Your task to perform on an android device: Clear the cart on ebay. Add usb-a to usb-b to the cart on ebay, then select checkout. Image 0: 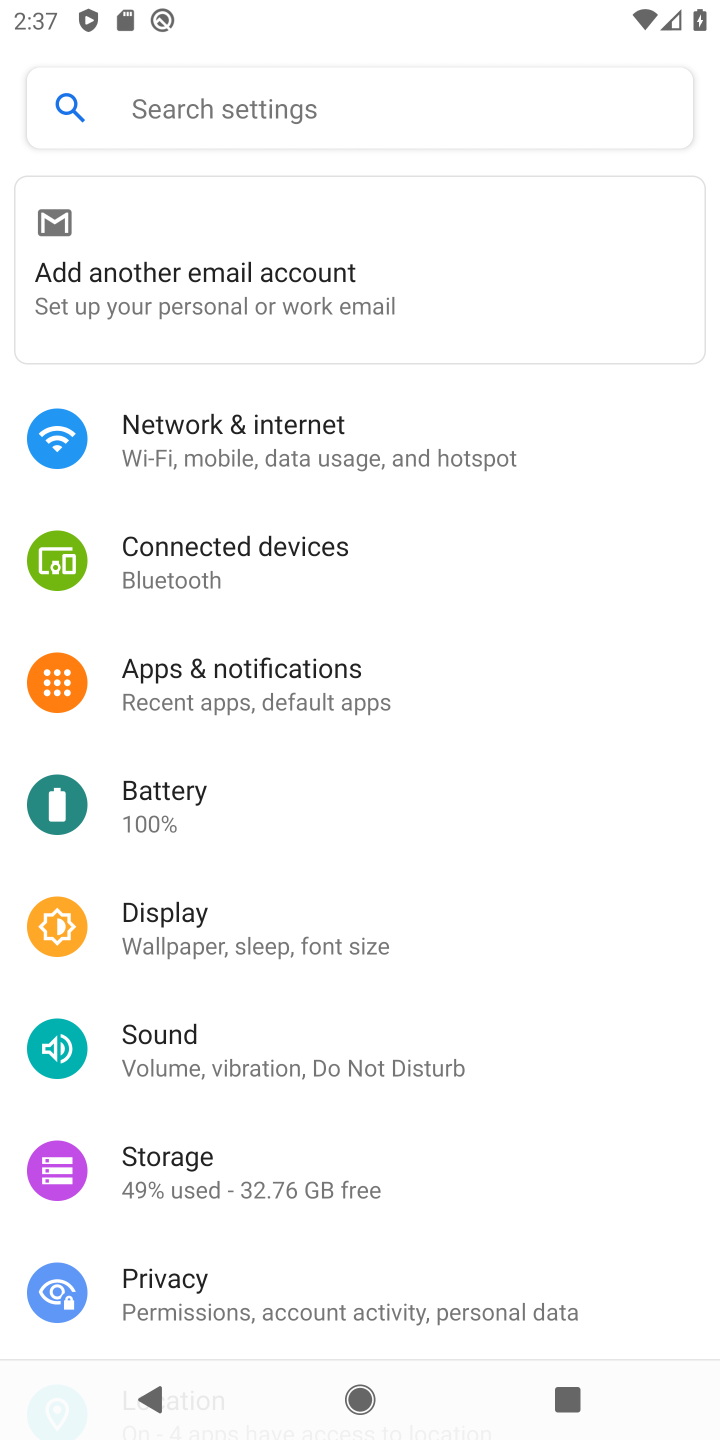
Step 0: press home button
Your task to perform on an android device: Clear the cart on ebay. Add usb-a to usb-b to the cart on ebay, then select checkout. Image 1: 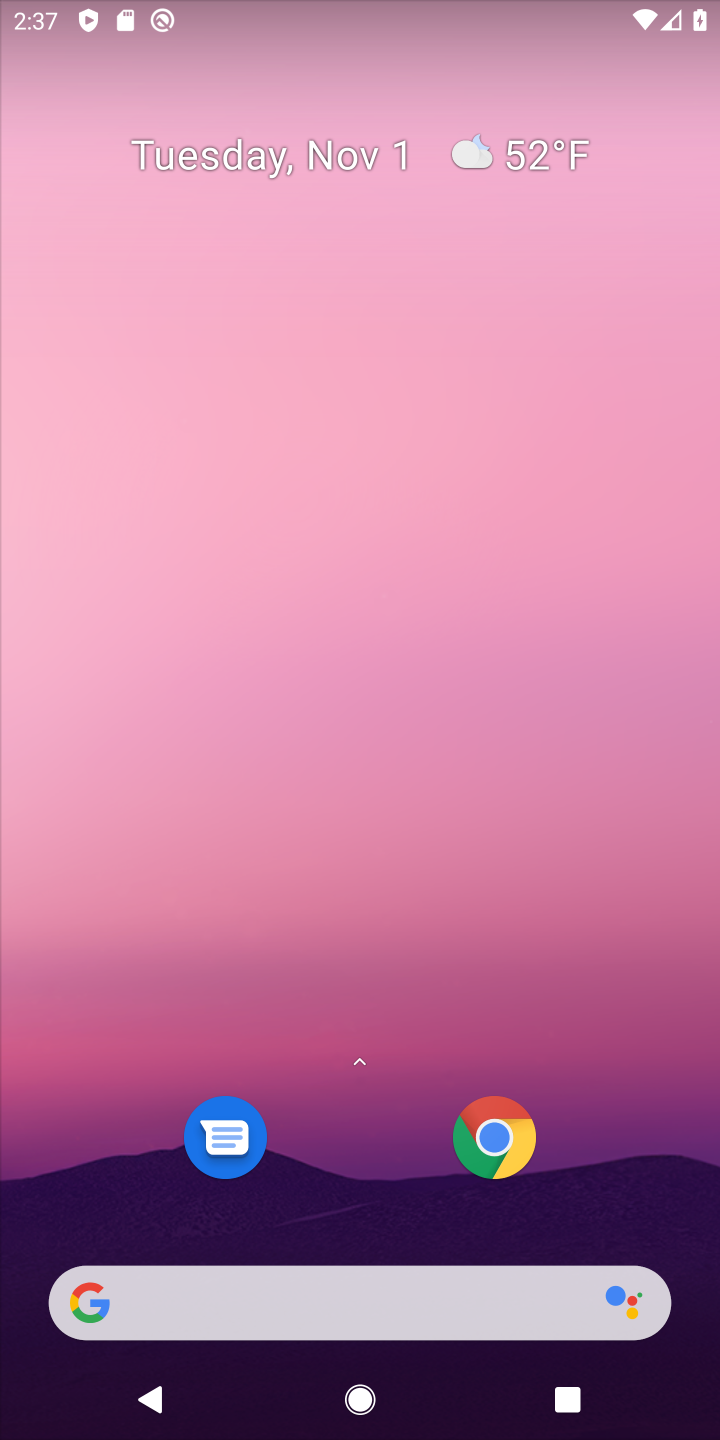
Step 1: click (324, 1279)
Your task to perform on an android device: Clear the cart on ebay. Add usb-a to usb-b to the cart on ebay, then select checkout. Image 2: 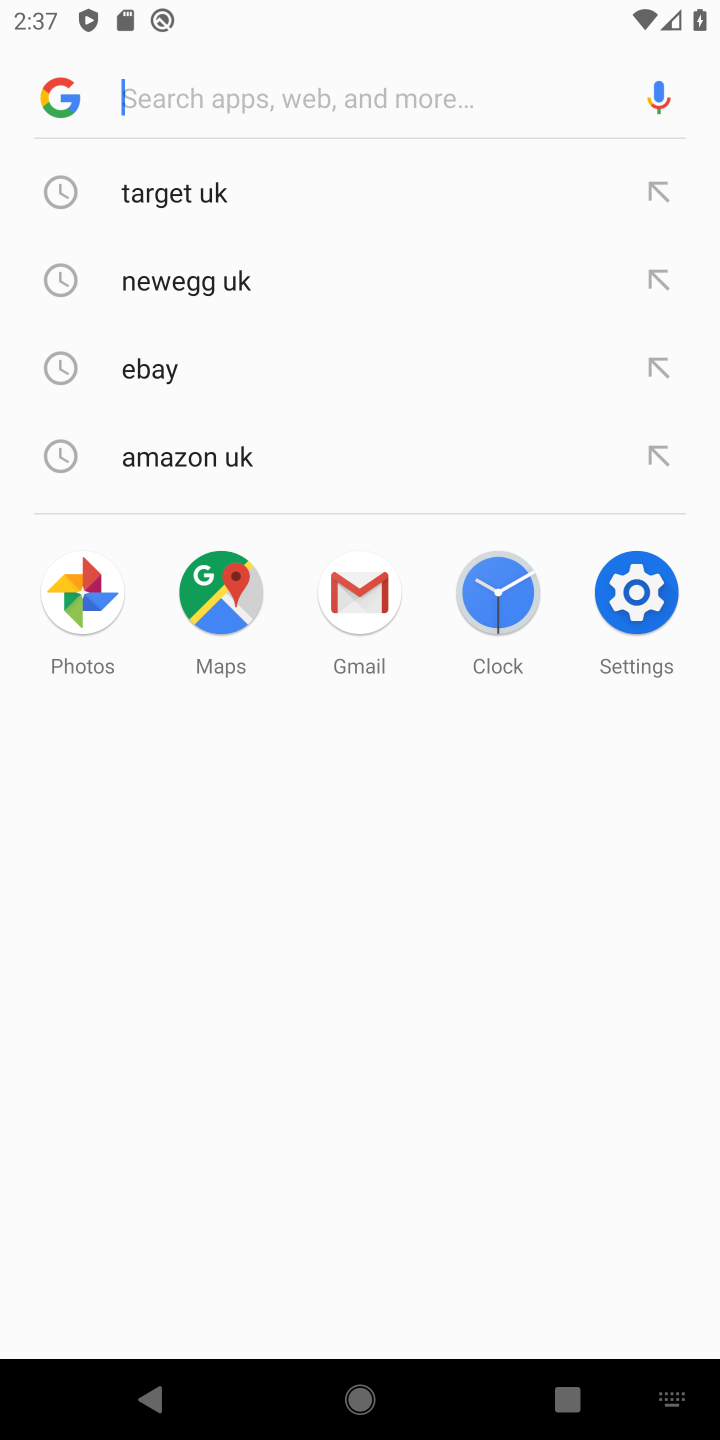
Step 2: type "ebay"
Your task to perform on an android device: Clear the cart on ebay. Add usb-a to usb-b to the cart on ebay, then select checkout. Image 3: 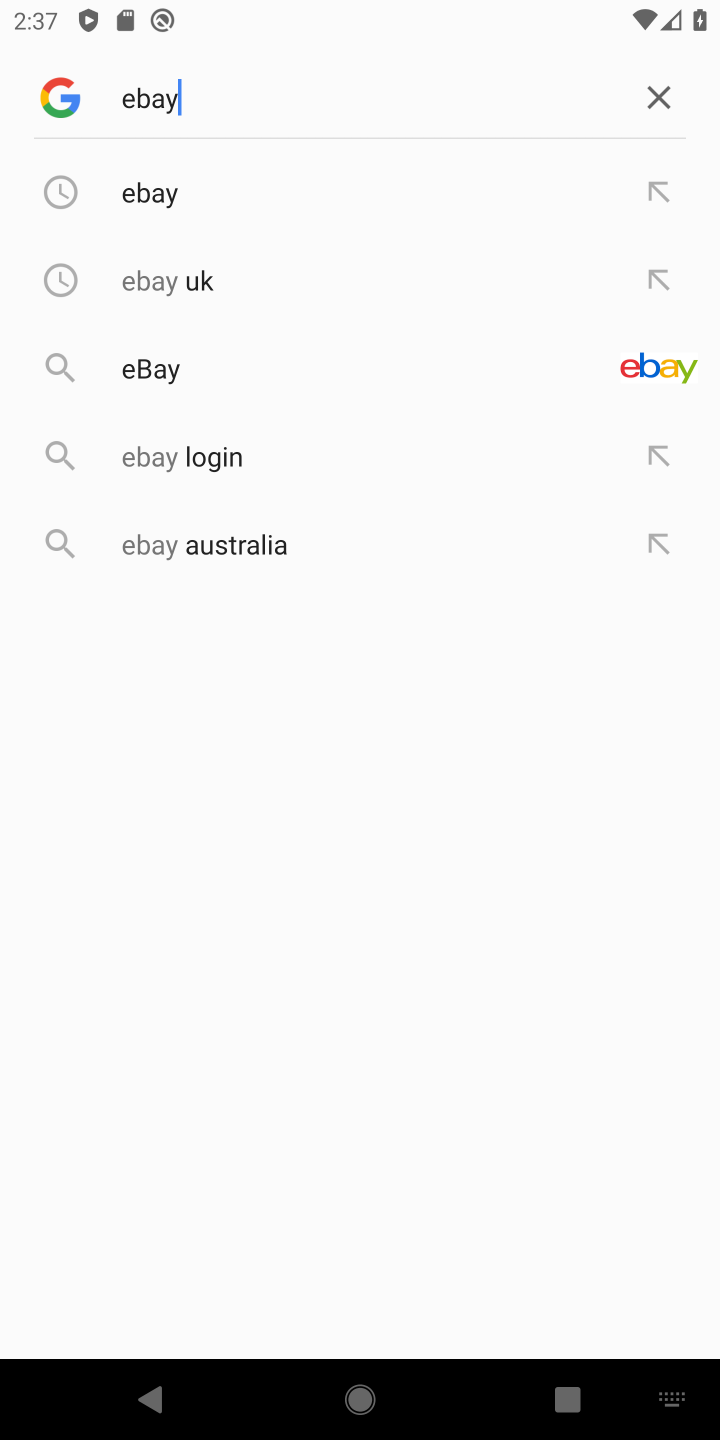
Step 3: click (216, 189)
Your task to perform on an android device: Clear the cart on ebay. Add usb-a to usb-b to the cart on ebay, then select checkout. Image 4: 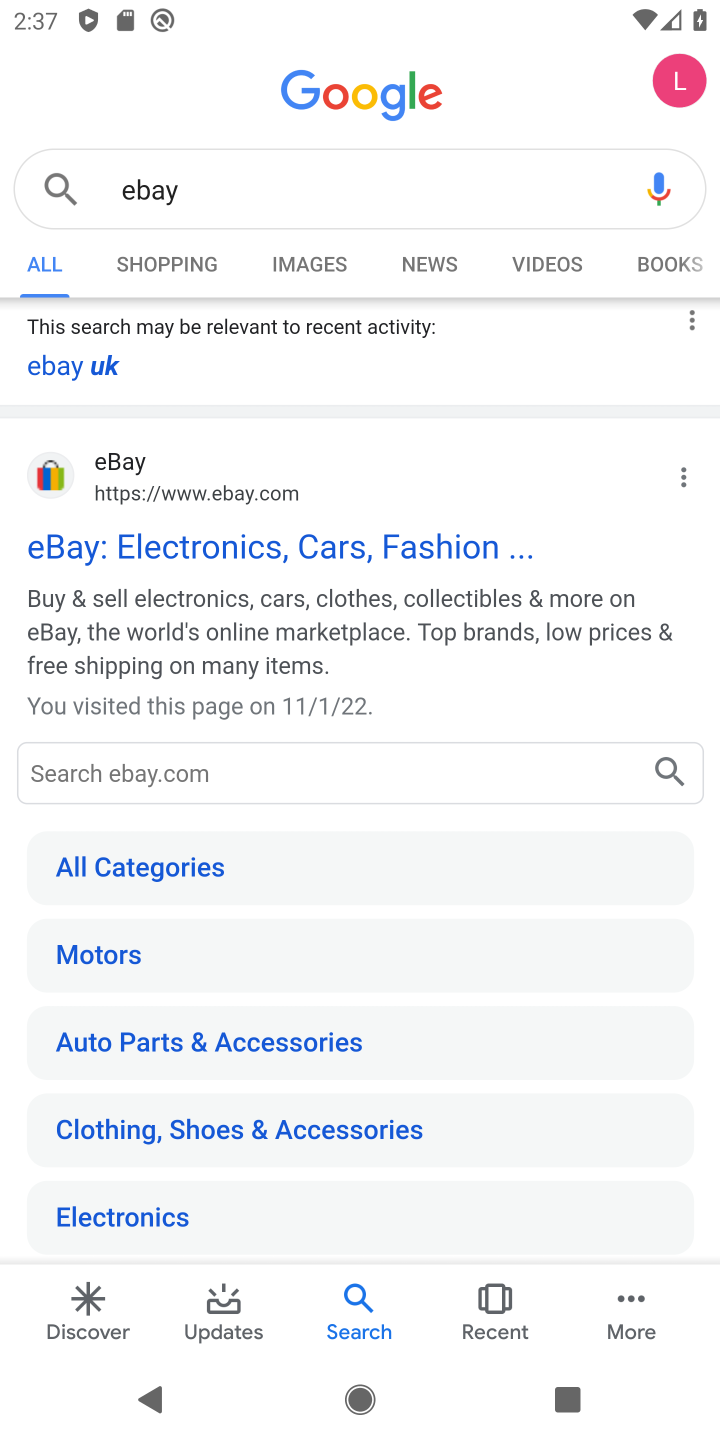
Step 4: click (310, 533)
Your task to perform on an android device: Clear the cart on ebay. Add usb-a to usb-b to the cart on ebay, then select checkout. Image 5: 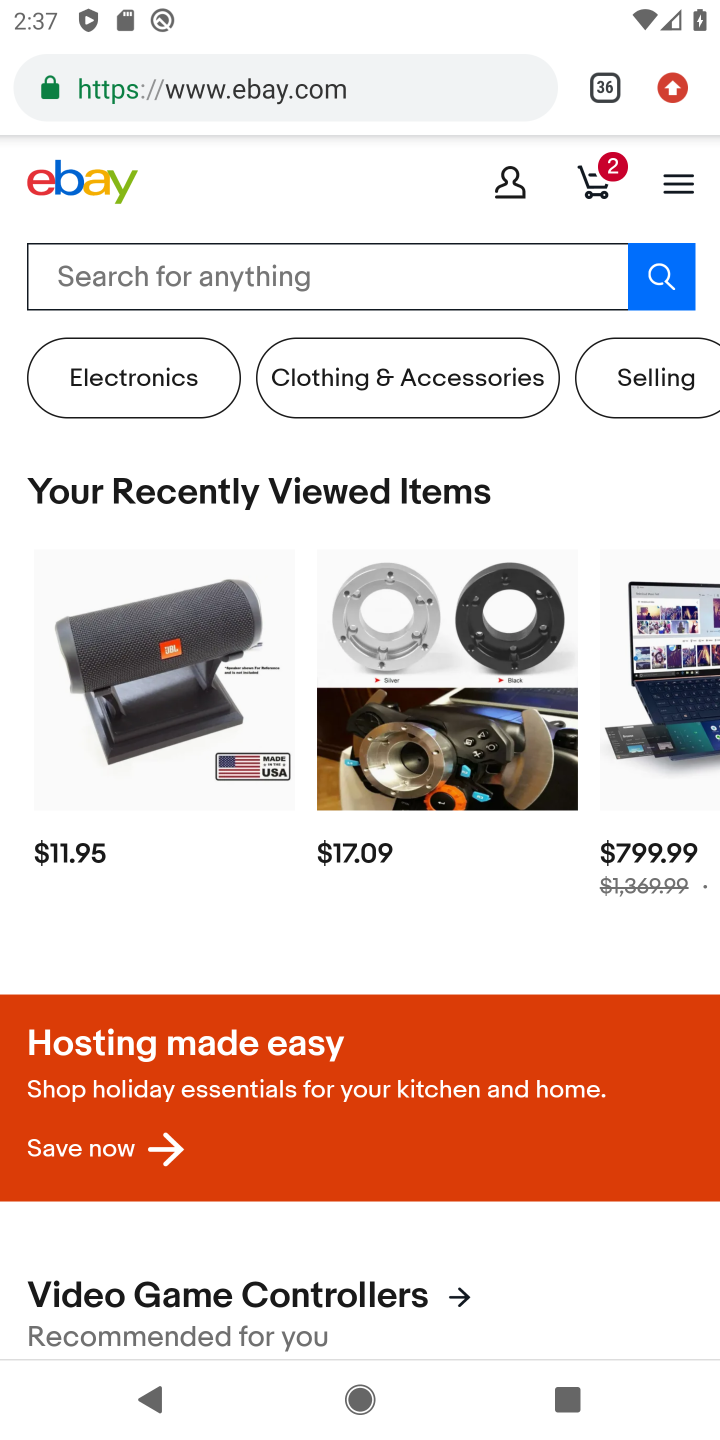
Step 5: click (373, 262)
Your task to perform on an android device: Clear the cart on ebay. Add usb-a to usb-b to the cart on ebay, then select checkout. Image 6: 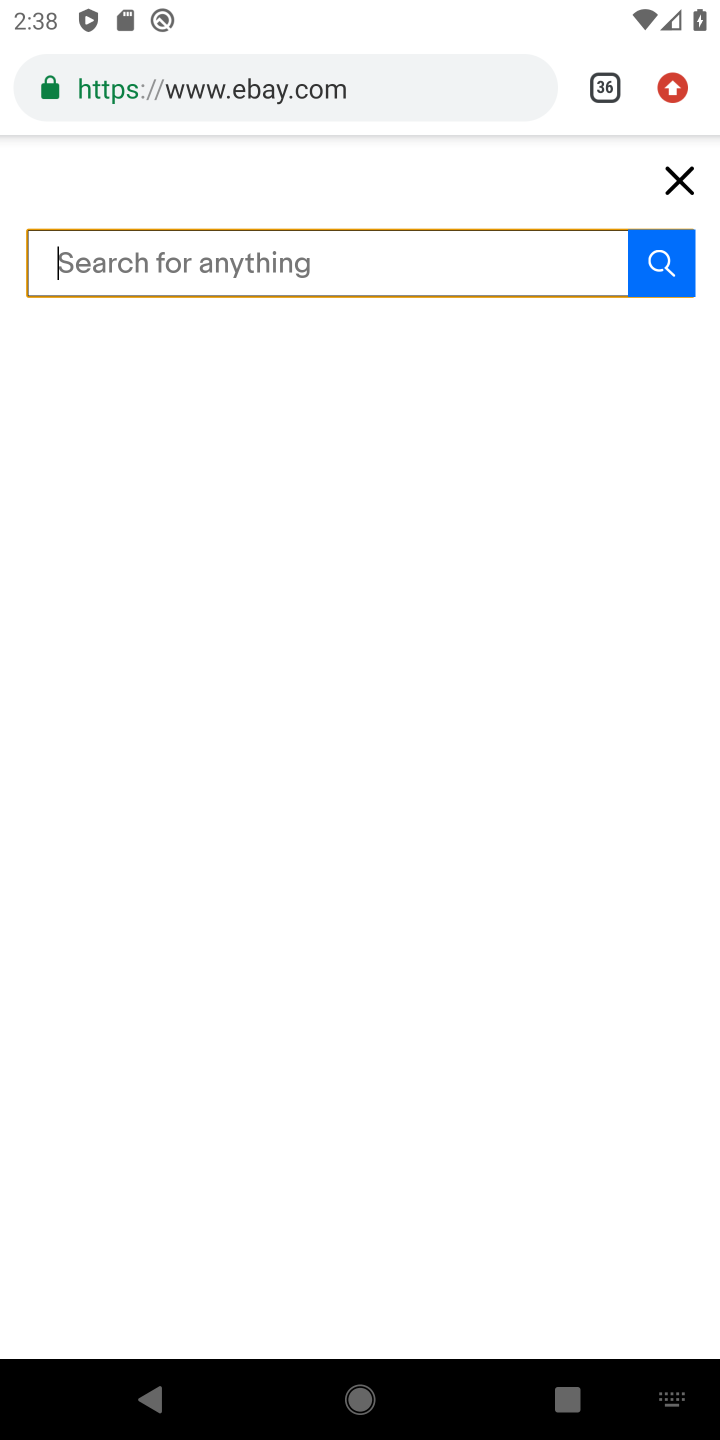
Step 6: click (287, 272)
Your task to perform on an android device: Clear the cart on ebay. Add usb-a to usb-b to the cart on ebay, then select checkout. Image 7: 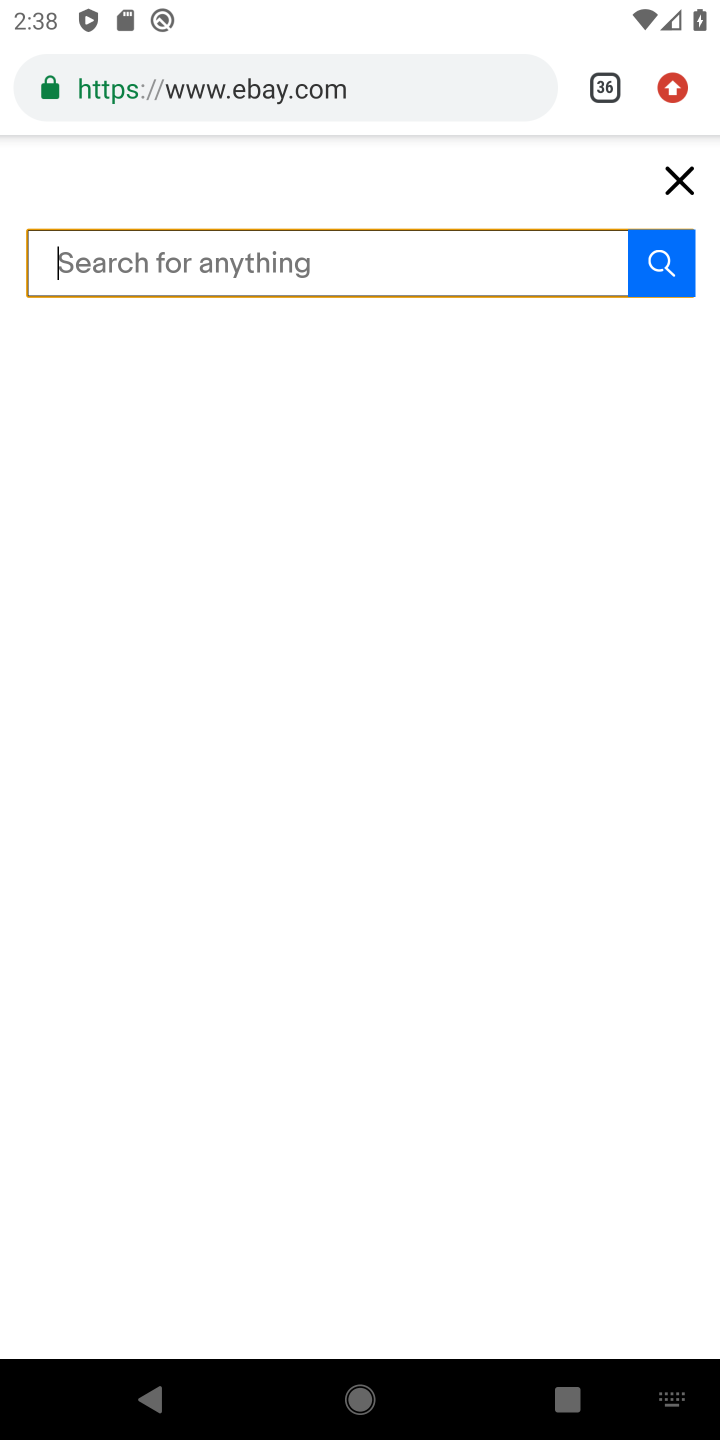
Step 7: type "usb-a to usb-c"
Your task to perform on an android device: Clear the cart on ebay. Add usb-a to usb-b to the cart on ebay, then select checkout. Image 8: 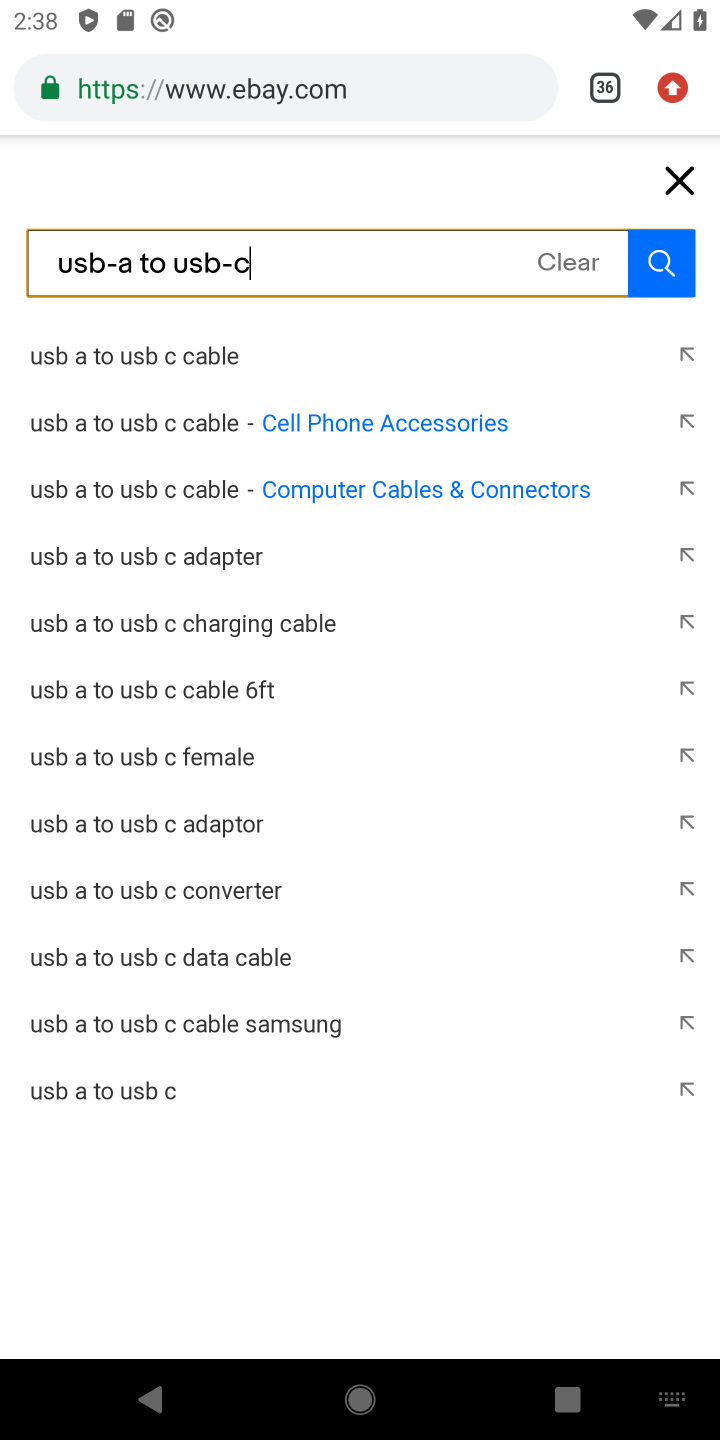
Step 8: click (322, 351)
Your task to perform on an android device: Clear the cart on ebay. Add usb-a to usb-b to the cart on ebay, then select checkout. Image 9: 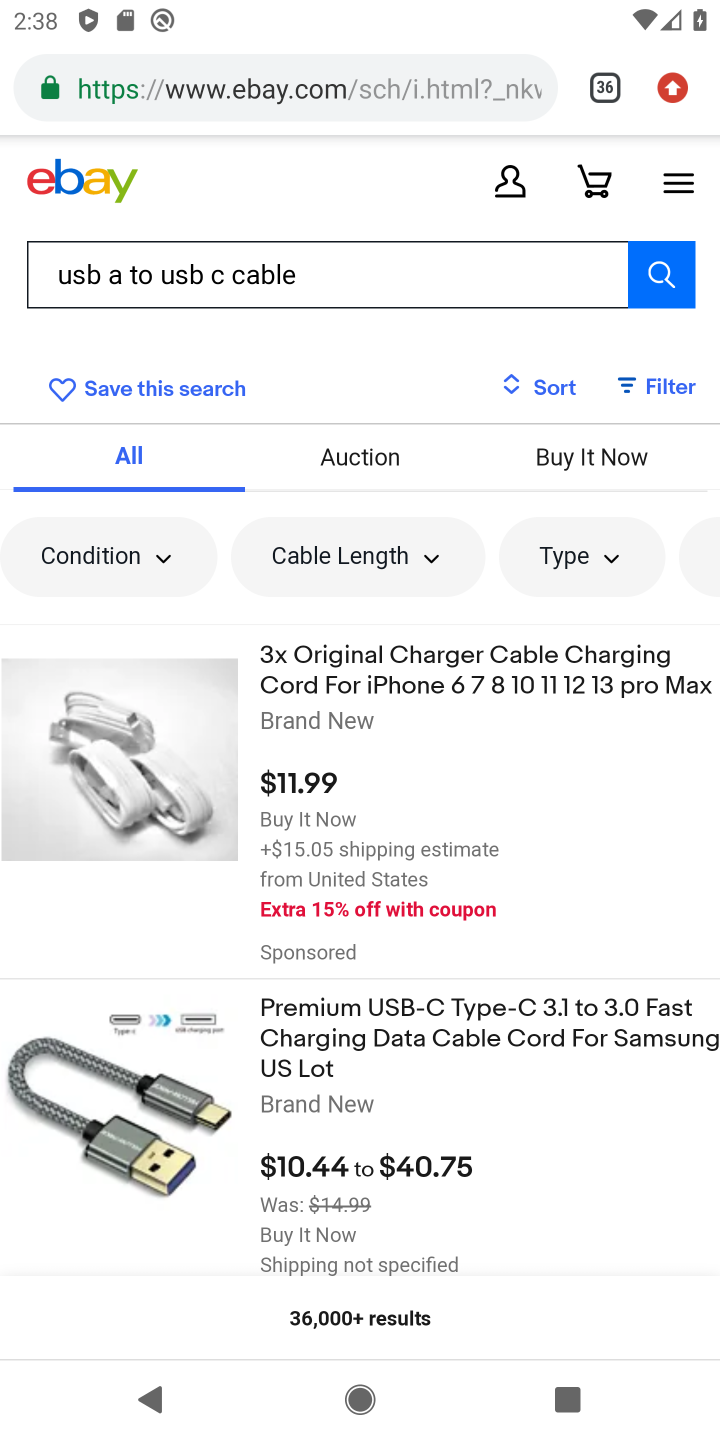
Step 9: click (355, 695)
Your task to perform on an android device: Clear the cart on ebay. Add usb-a to usb-b to the cart on ebay, then select checkout. Image 10: 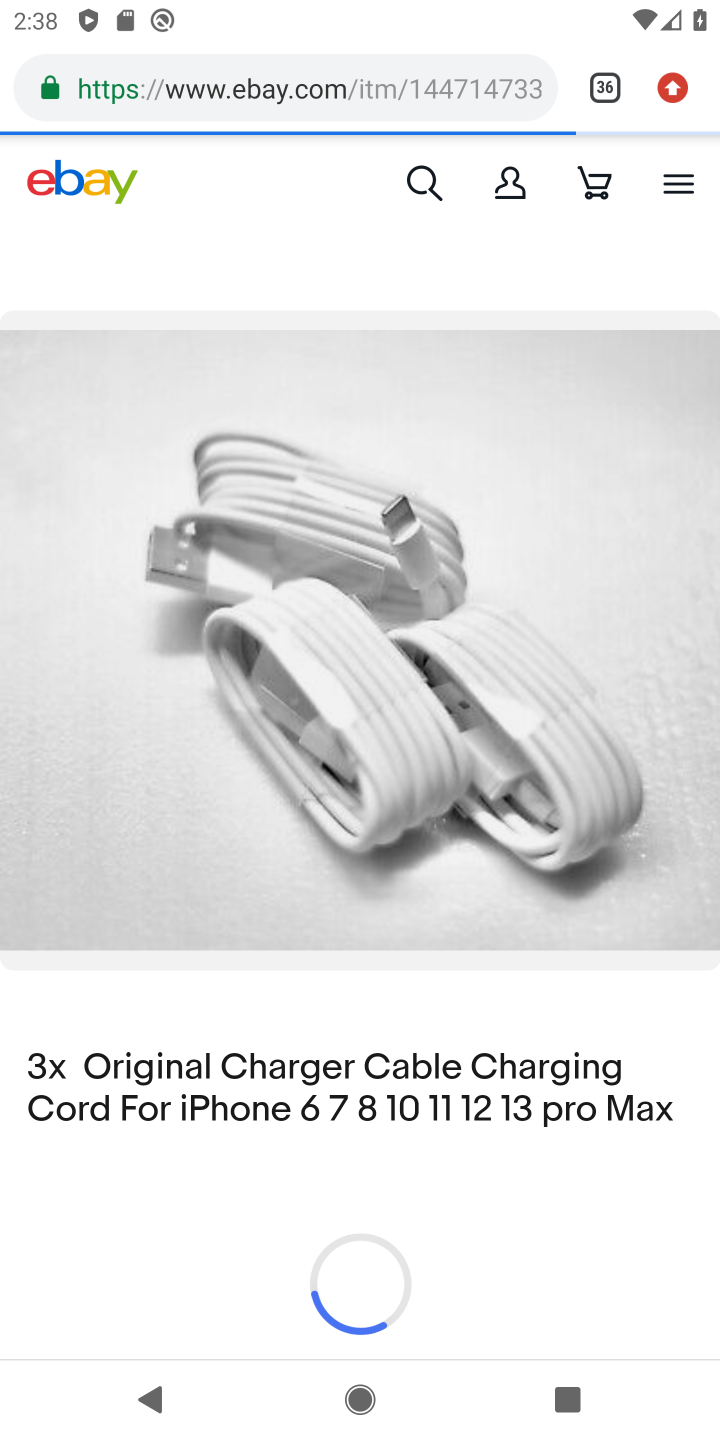
Step 10: drag from (499, 1163) to (544, 588)
Your task to perform on an android device: Clear the cart on ebay. Add usb-a to usb-b to the cart on ebay, then select checkout. Image 11: 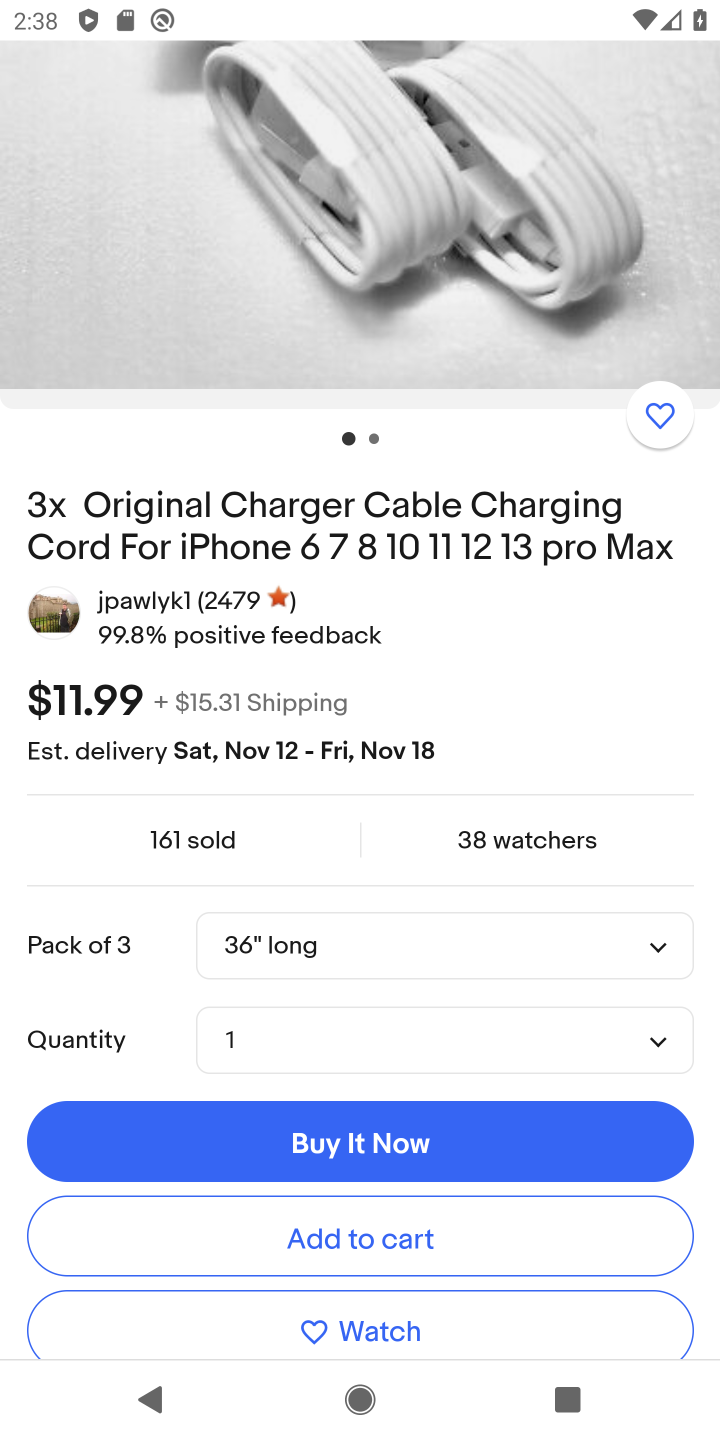
Step 11: click (394, 1224)
Your task to perform on an android device: Clear the cart on ebay. Add usb-a to usb-b to the cart on ebay, then select checkout. Image 12: 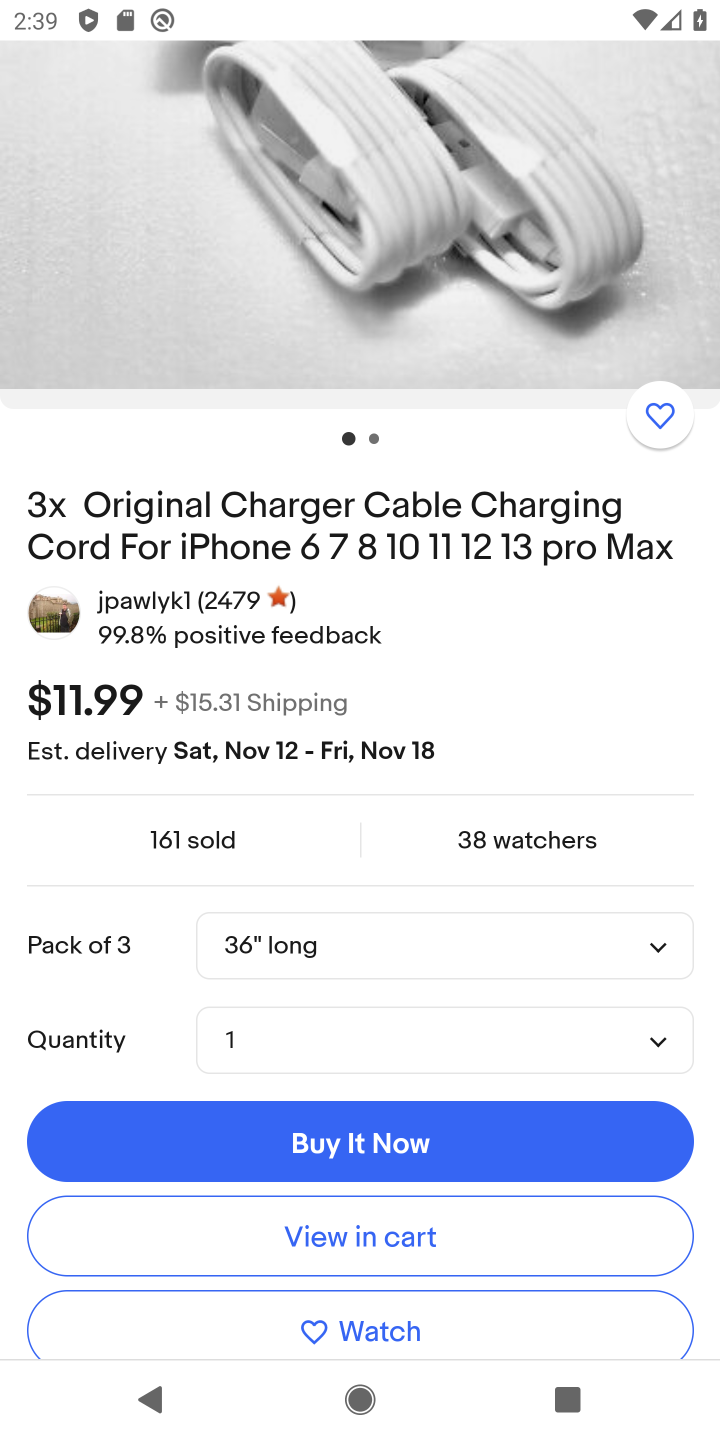
Step 12: task complete